Your task to perform on an android device: Open privacy settings Image 0: 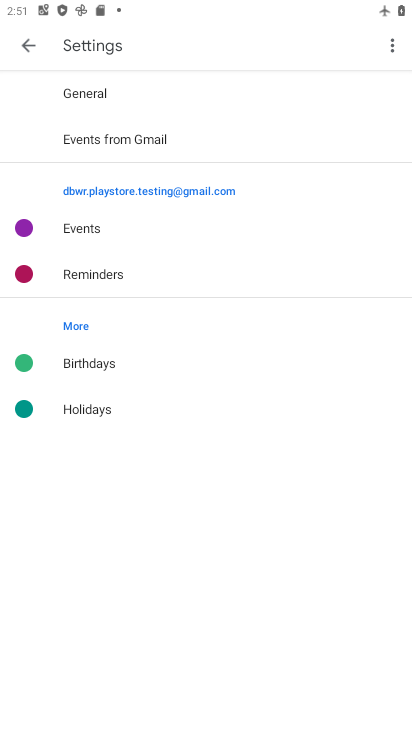
Step 0: press home button
Your task to perform on an android device: Open privacy settings Image 1: 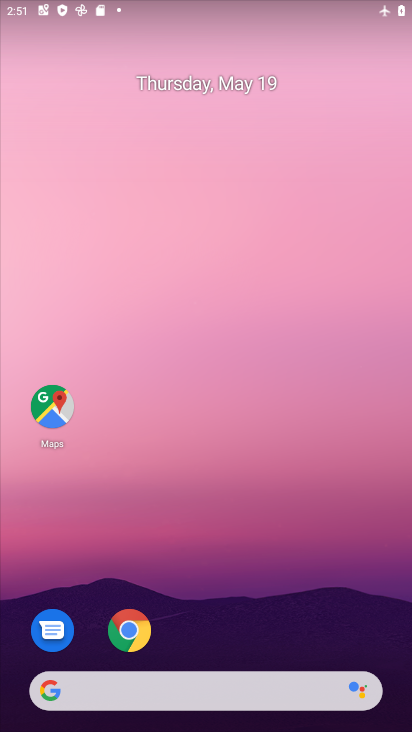
Step 1: drag from (374, 642) to (348, 87)
Your task to perform on an android device: Open privacy settings Image 2: 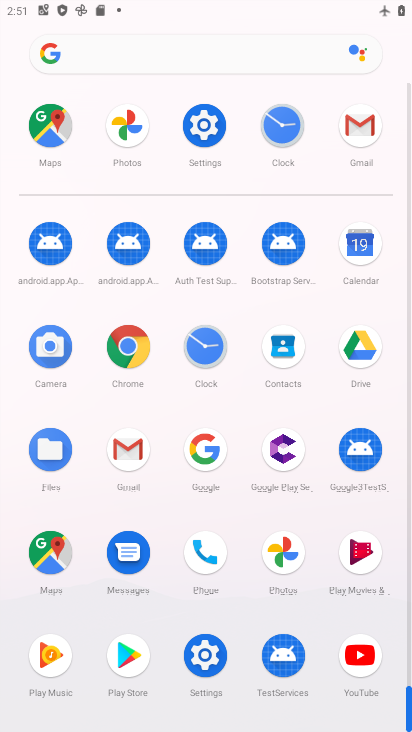
Step 2: click (203, 655)
Your task to perform on an android device: Open privacy settings Image 3: 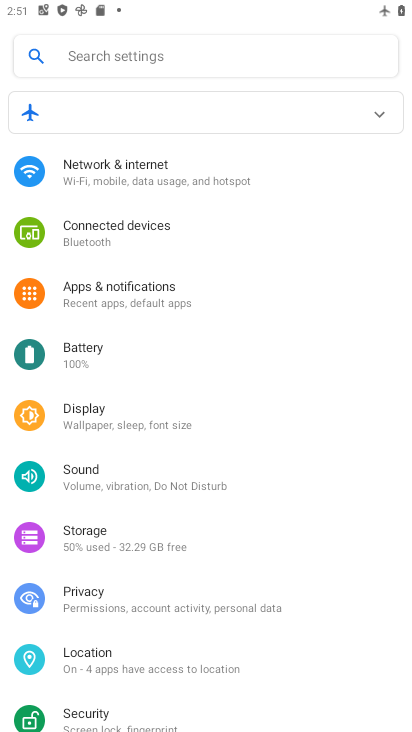
Step 3: click (83, 599)
Your task to perform on an android device: Open privacy settings Image 4: 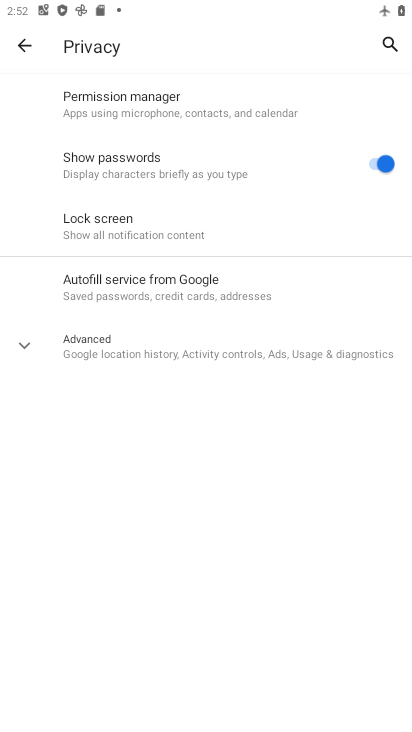
Step 4: click (21, 344)
Your task to perform on an android device: Open privacy settings Image 5: 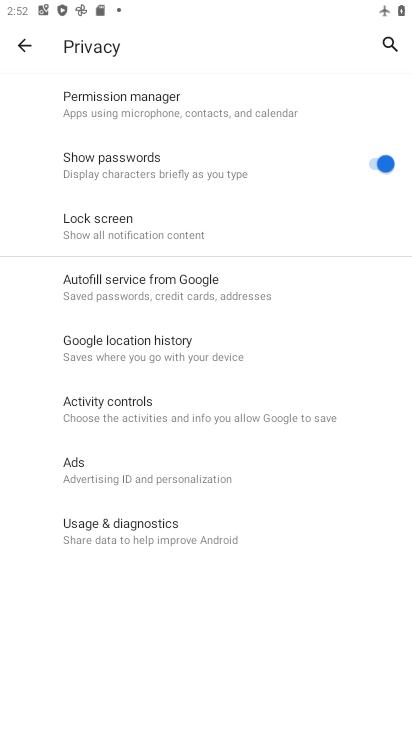
Step 5: task complete